Your task to perform on an android device: install app "DoorDash - Food Delivery" Image 0: 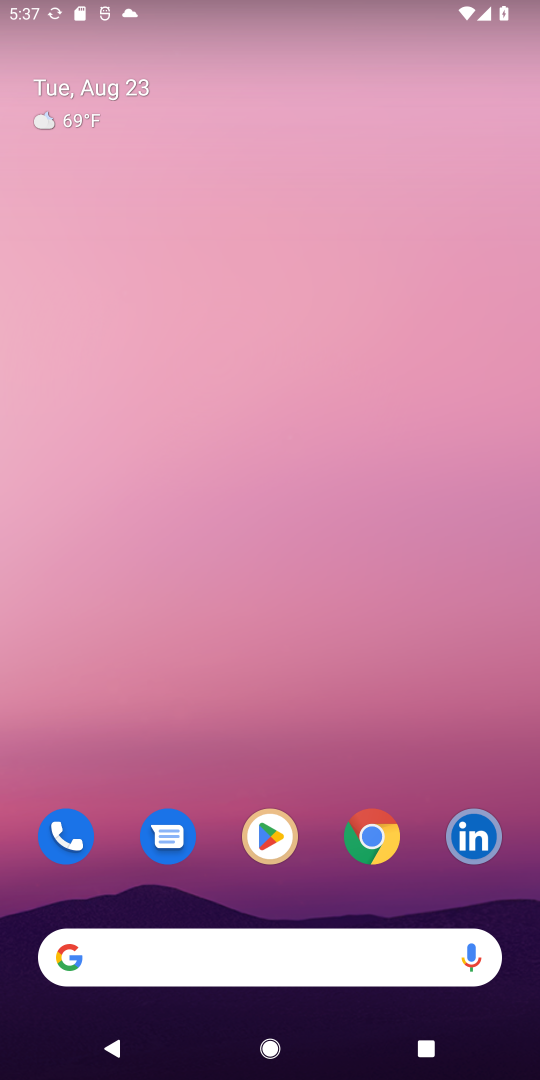
Step 0: click (271, 832)
Your task to perform on an android device: install app "DoorDash - Food Delivery" Image 1: 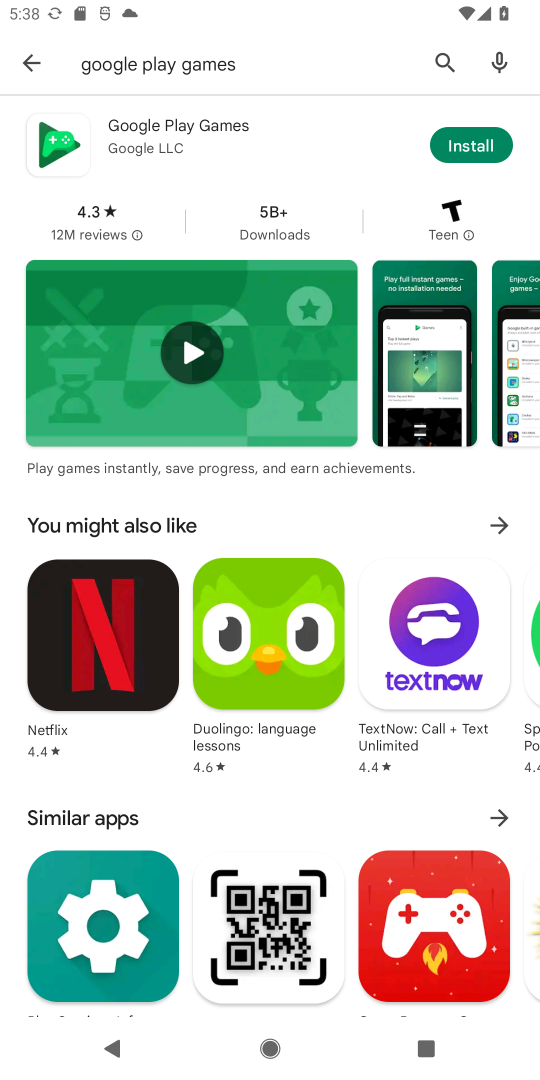
Step 1: click (437, 55)
Your task to perform on an android device: install app "DoorDash - Food Delivery" Image 2: 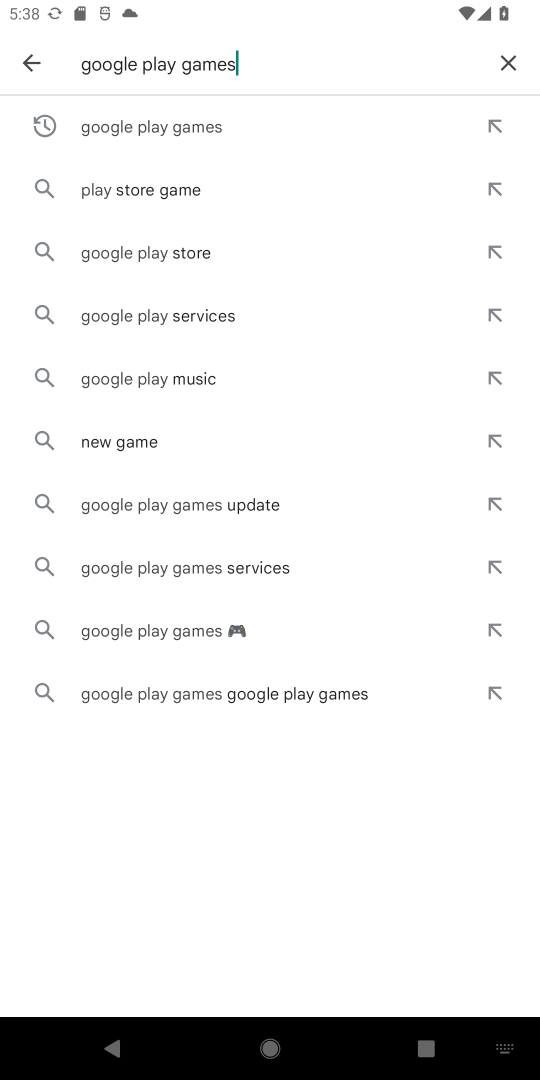
Step 2: click (499, 54)
Your task to perform on an android device: install app "DoorDash - Food Delivery" Image 3: 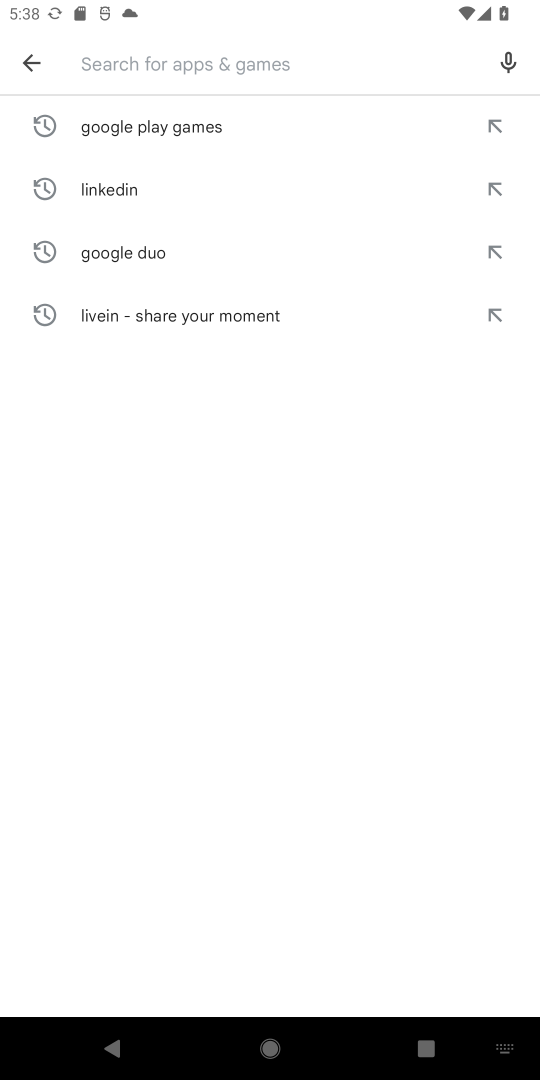
Step 3: type "DoorDash - Food Delivery"
Your task to perform on an android device: install app "DoorDash - Food Delivery" Image 4: 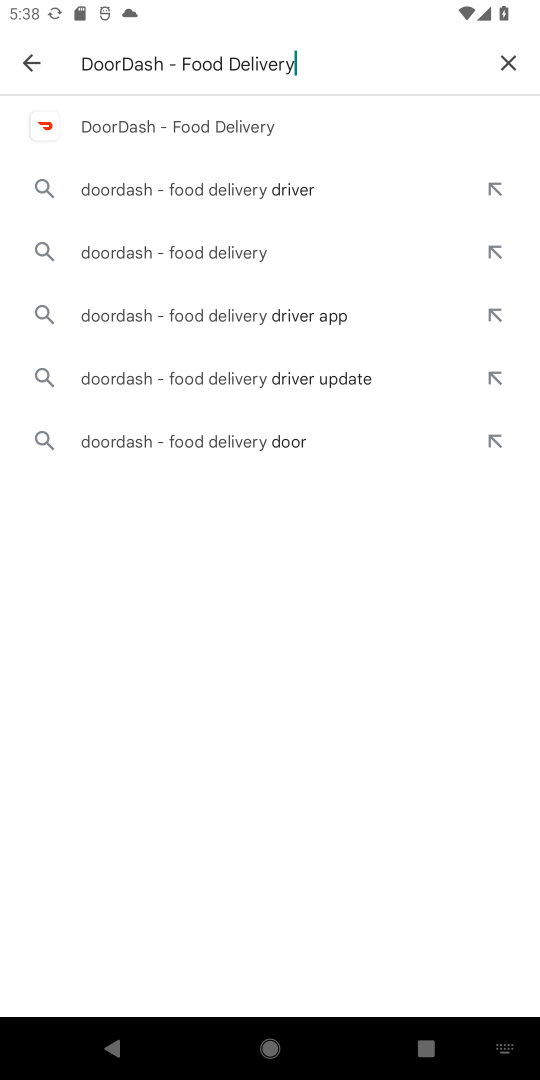
Step 4: click (180, 118)
Your task to perform on an android device: install app "DoorDash - Food Delivery" Image 5: 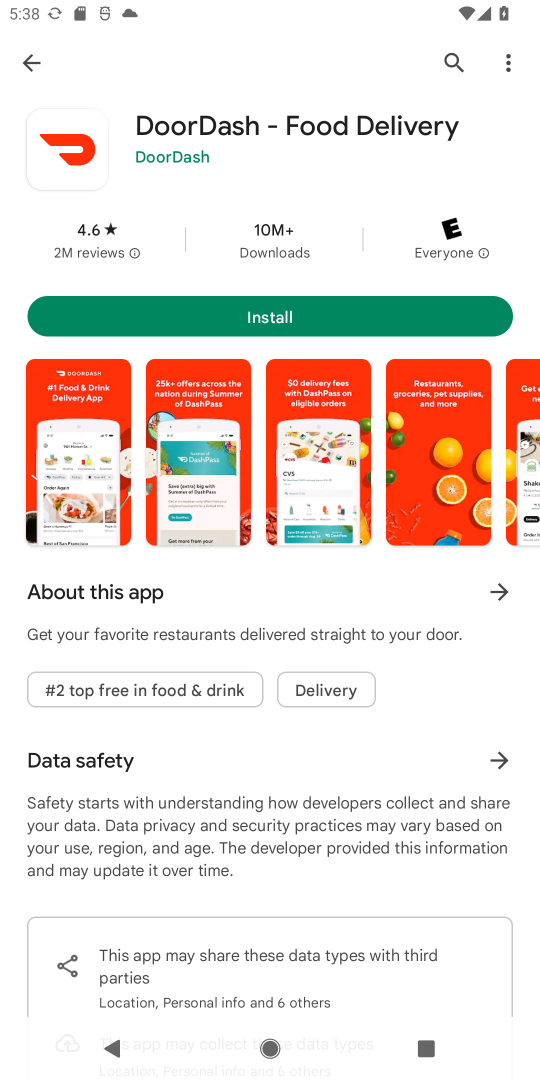
Step 5: click (274, 311)
Your task to perform on an android device: install app "DoorDash - Food Delivery" Image 6: 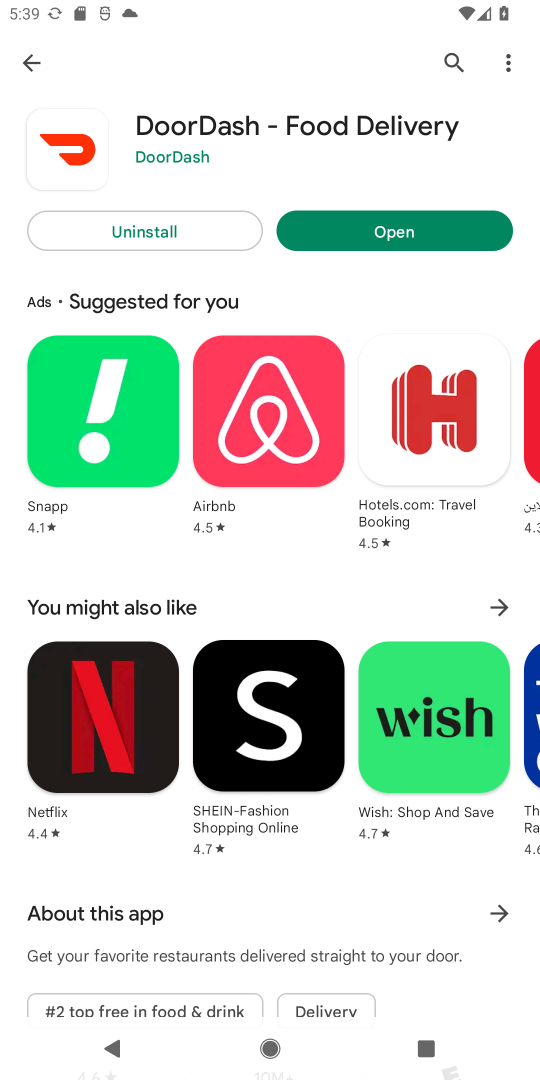
Step 6: task complete